Your task to perform on an android device: read, delete, or share a saved page in the chrome app Image 0: 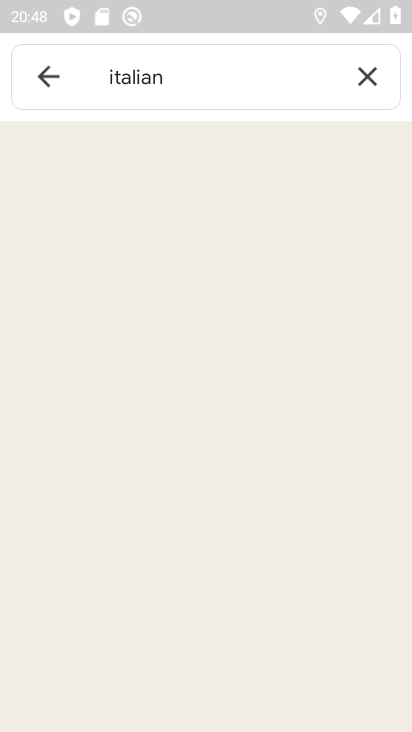
Step 0: press home button
Your task to perform on an android device: read, delete, or share a saved page in the chrome app Image 1: 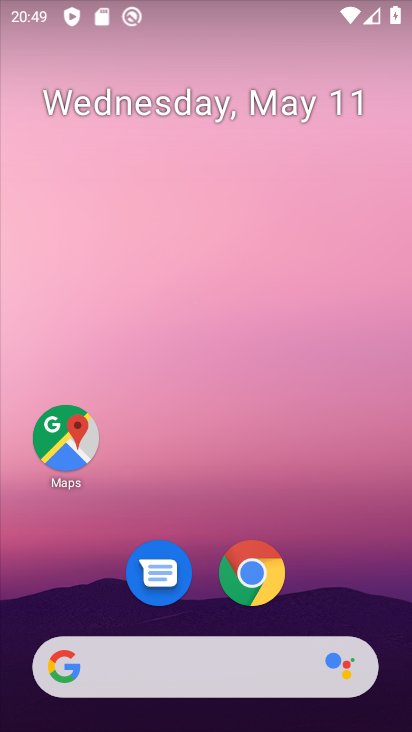
Step 1: click (246, 575)
Your task to perform on an android device: read, delete, or share a saved page in the chrome app Image 2: 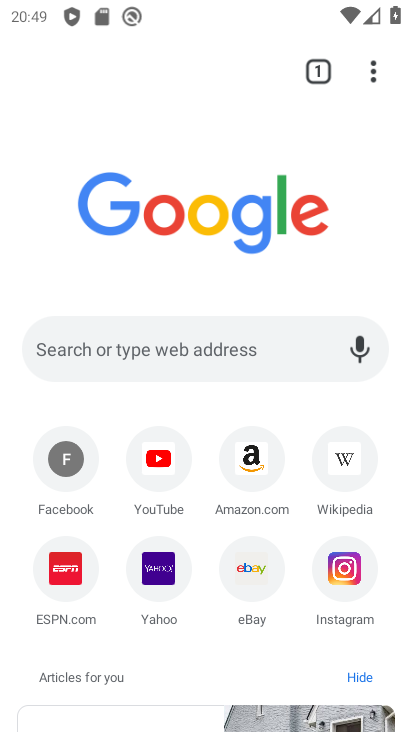
Step 2: click (371, 83)
Your task to perform on an android device: read, delete, or share a saved page in the chrome app Image 3: 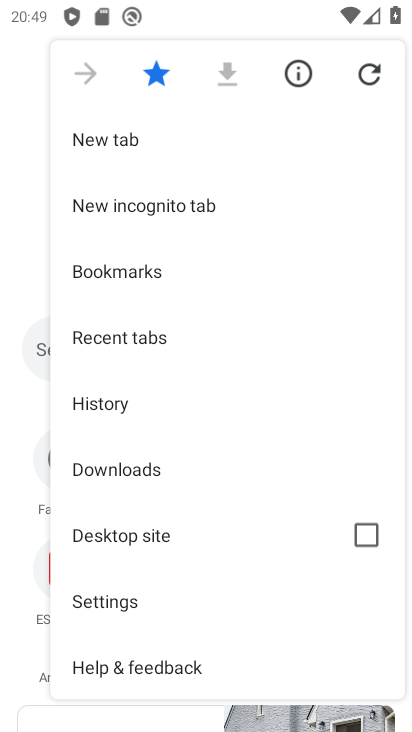
Step 3: click (139, 452)
Your task to perform on an android device: read, delete, or share a saved page in the chrome app Image 4: 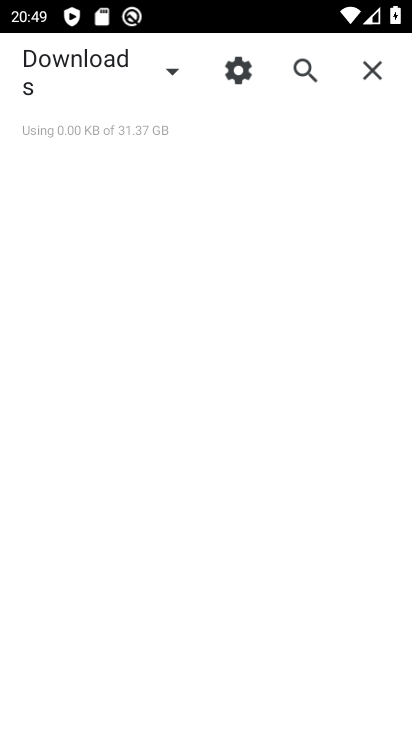
Step 4: task complete